Your task to perform on an android device: Open location settings Image 0: 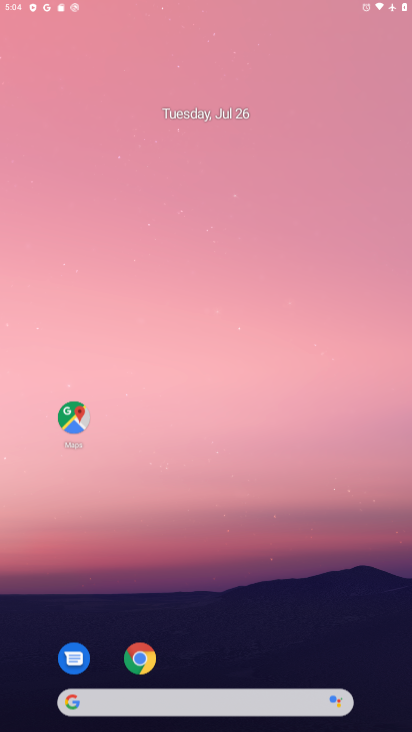
Step 0: press home button
Your task to perform on an android device: Open location settings Image 1: 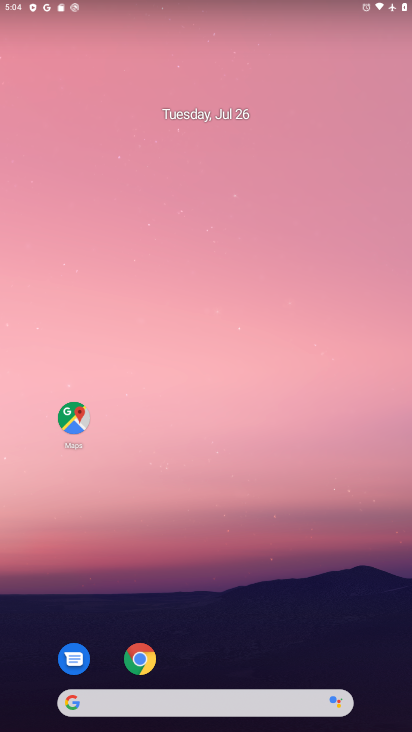
Step 1: click (139, 652)
Your task to perform on an android device: Open location settings Image 2: 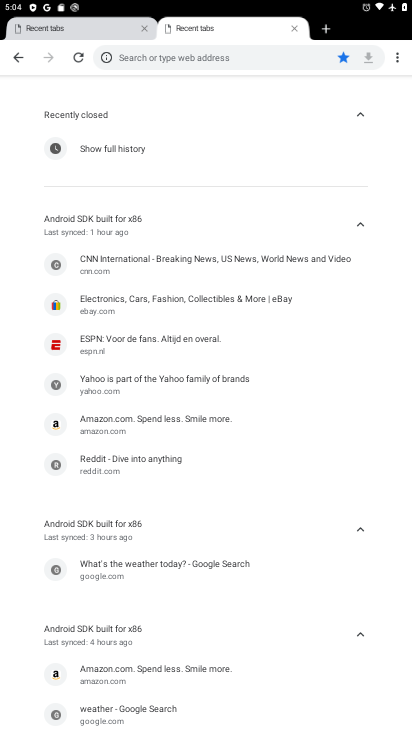
Step 2: press home button
Your task to perform on an android device: Open location settings Image 3: 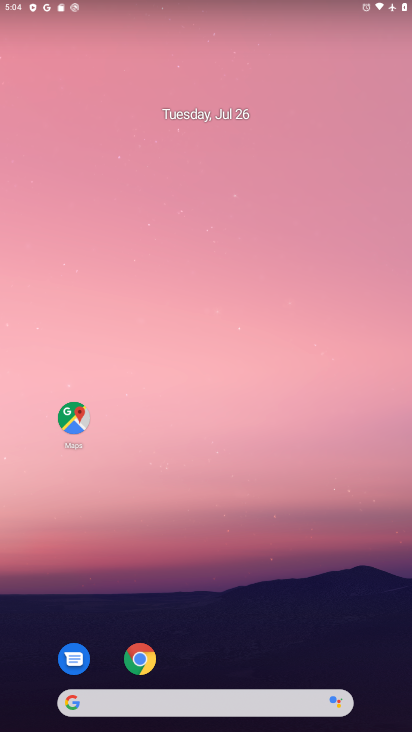
Step 3: drag from (203, 668) to (232, 110)
Your task to perform on an android device: Open location settings Image 4: 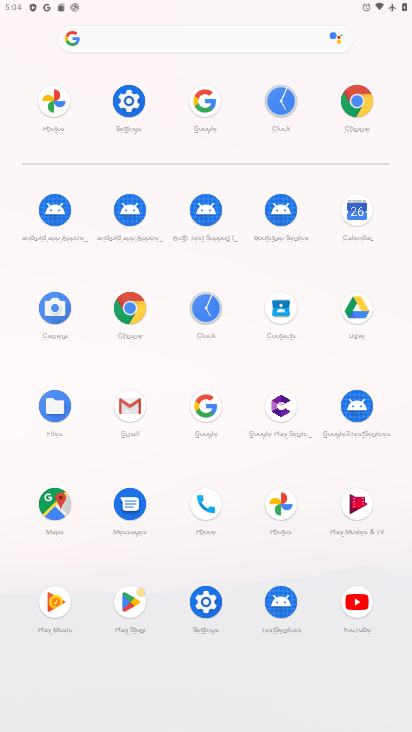
Step 4: click (202, 598)
Your task to perform on an android device: Open location settings Image 5: 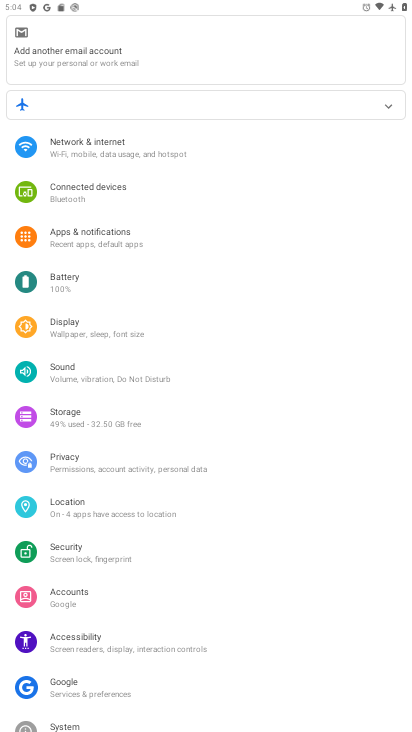
Step 5: click (86, 501)
Your task to perform on an android device: Open location settings Image 6: 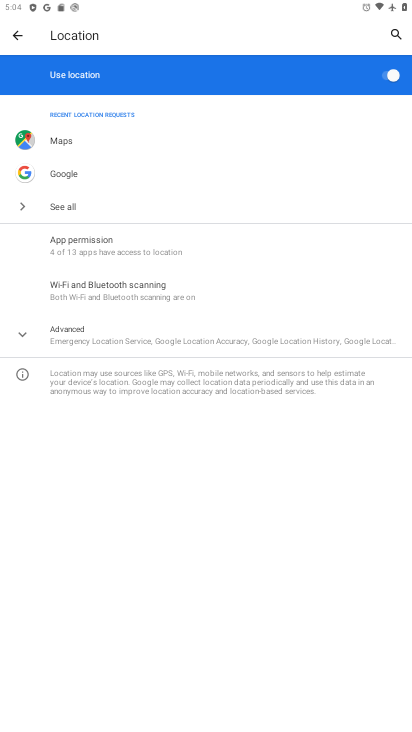
Step 6: click (85, 339)
Your task to perform on an android device: Open location settings Image 7: 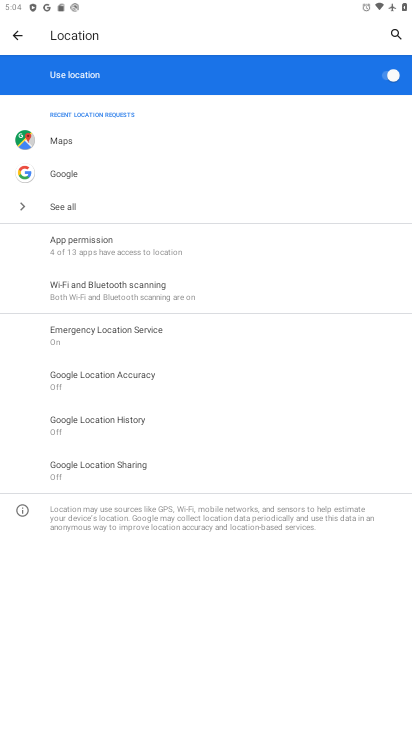
Step 7: task complete